Your task to perform on an android device: turn on improve location accuracy Image 0: 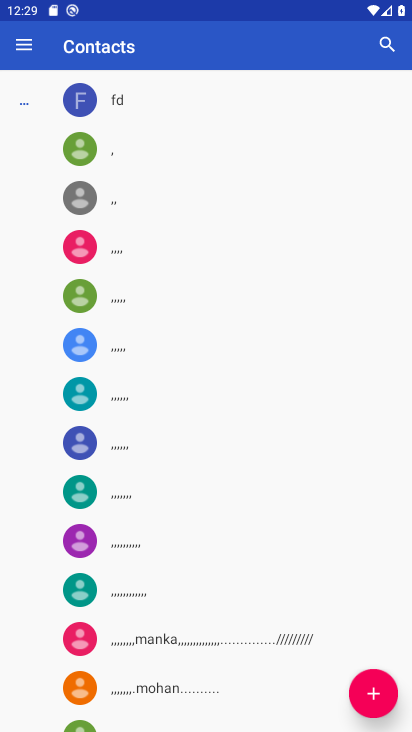
Step 0: press home button
Your task to perform on an android device: turn on improve location accuracy Image 1: 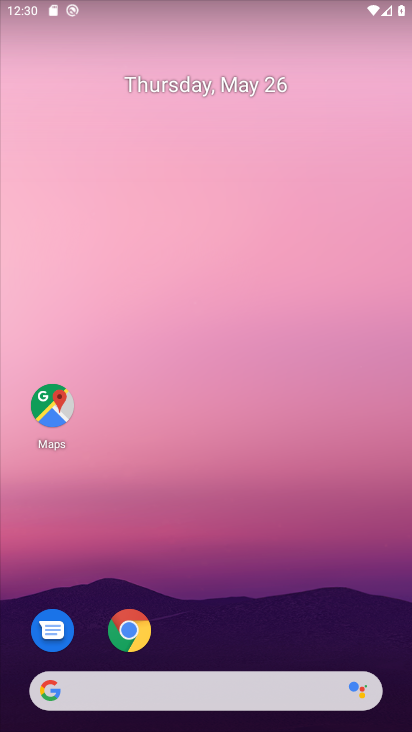
Step 1: drag from (196, 655) to (235, 9)
Your task to perform on an android device: turn on improve location accuracy Image 2: 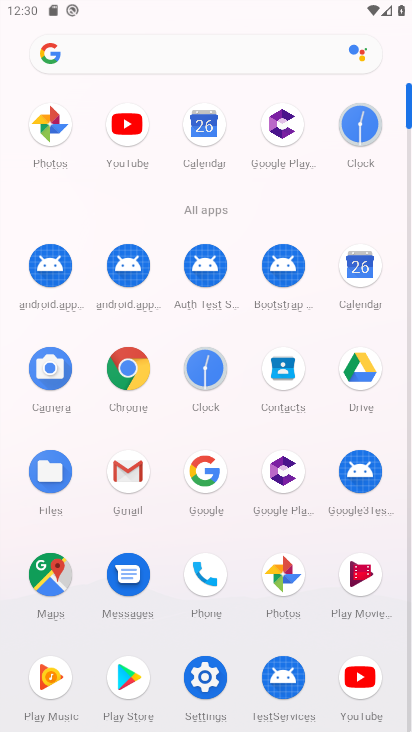
Step 2: click (203, 671)
Your task to perform on an android device: turn on improve location accuracy Image 3: 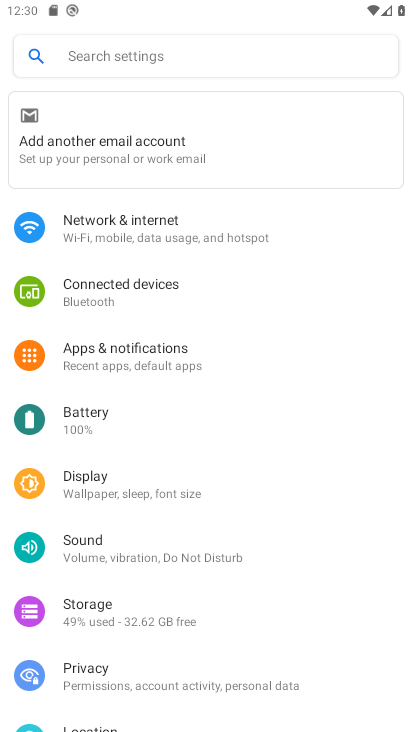
Step 3: drag from (169, 675) to (168, 272)
Your task to perform on an android device: turn on improve location accuracy Image 4: 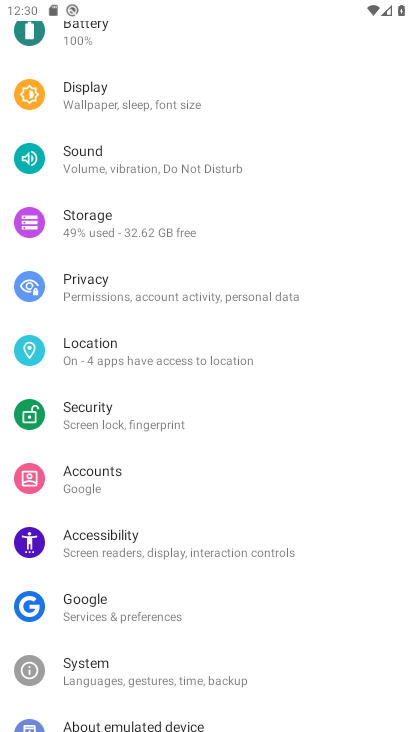
Step 4: click (138, 348)
Your task to perform on an android device: turn on improve location accuracy Image 5: 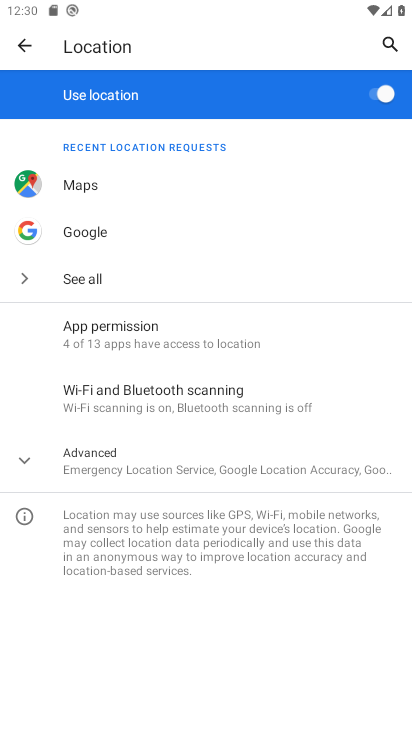
Step 5: click (24, 457)
Your task to perform on an android device: turn on improve location accuracy Image 6: 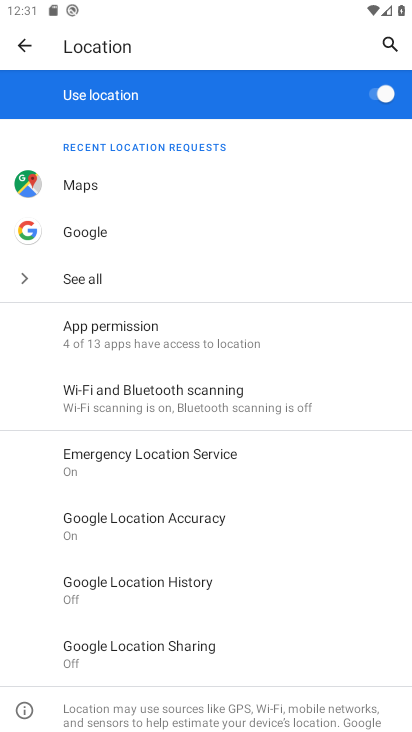
Step 6: click (128, 527)
Your task to perform on an android device: turn on improve location accuracy Image 7: 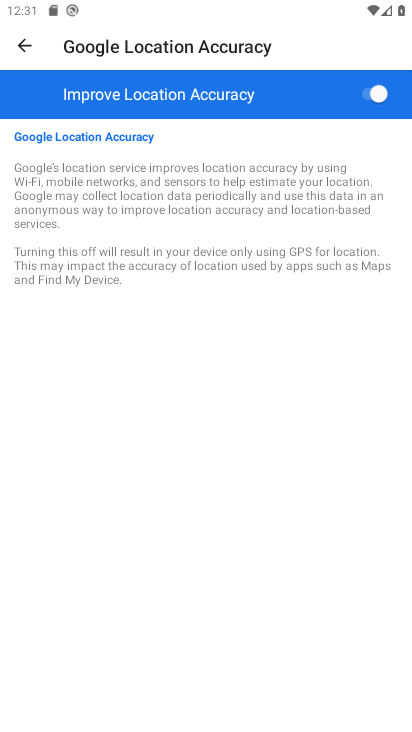
Step 7: task complete